Your task to perform on an android device: show emergency info Image 0: 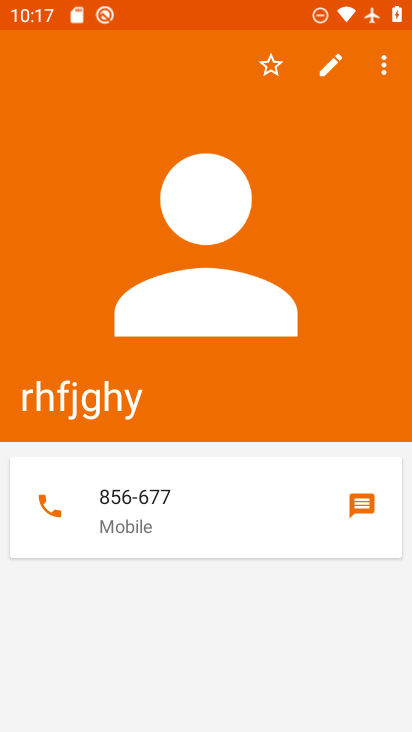
Step 0: press home button
Your task to perform on an android device: show emergency info Image 1: 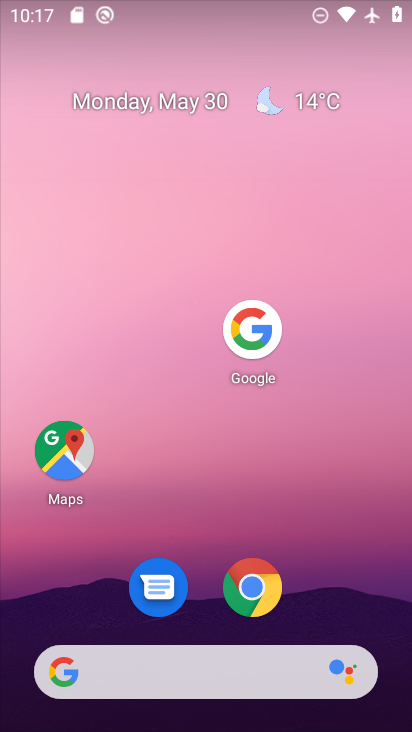
Step 1: drag from (196, 658) to (402, 136)
Your task to perform on an android device: show emergency info Image 2: 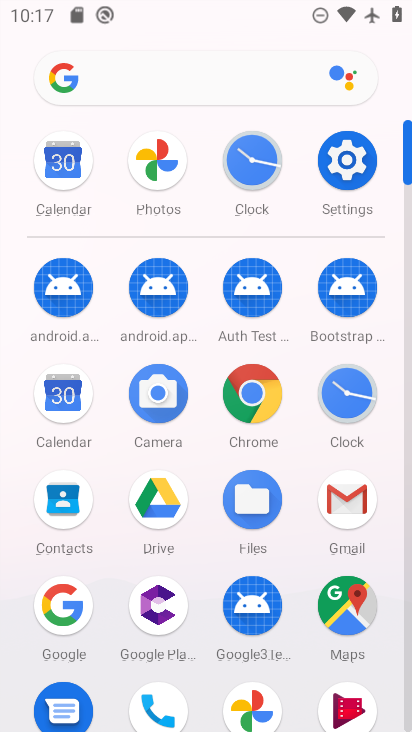
Step 2: click (356, 169)
Your task to perform on an android device: show emergency info Image 3: 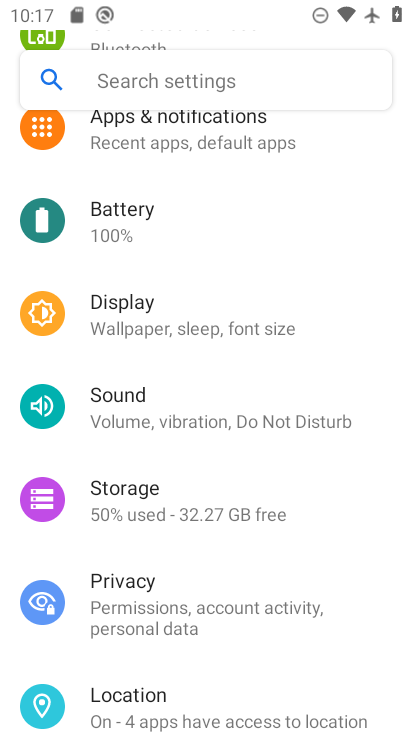
Step 3: drag from (262, 388) to (411, 328)
Your task to perform on an android device: show emergency info Image 4: 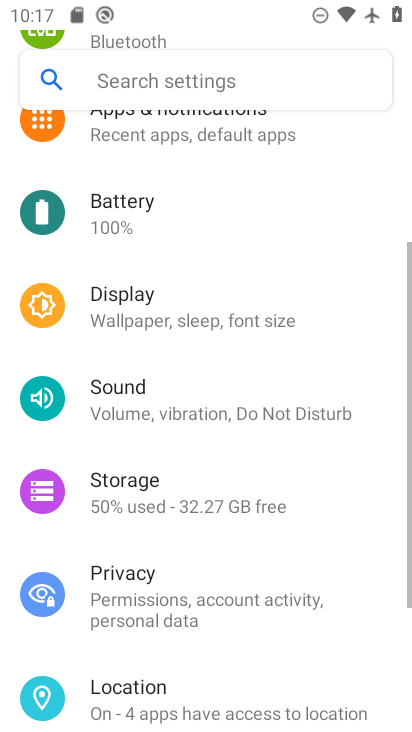
Step 4: drag from (274, 622) to (411, 412)
Your task to perform on an android device: show emergency info Image 5: 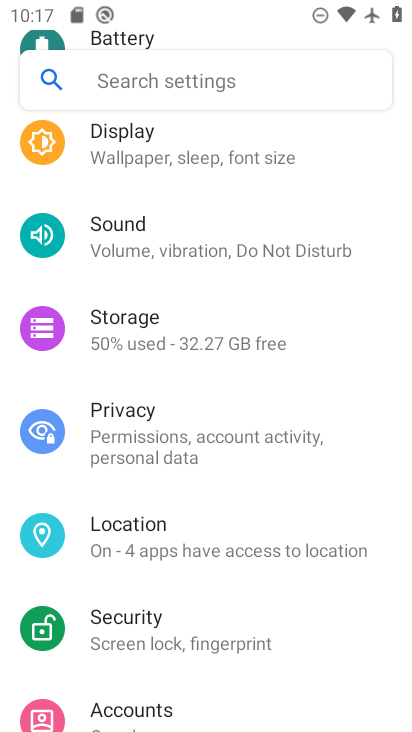
Step 5: drag from (267, 680) to (399, 59)
Your task to perform on an android device: show emergency info Image 6: 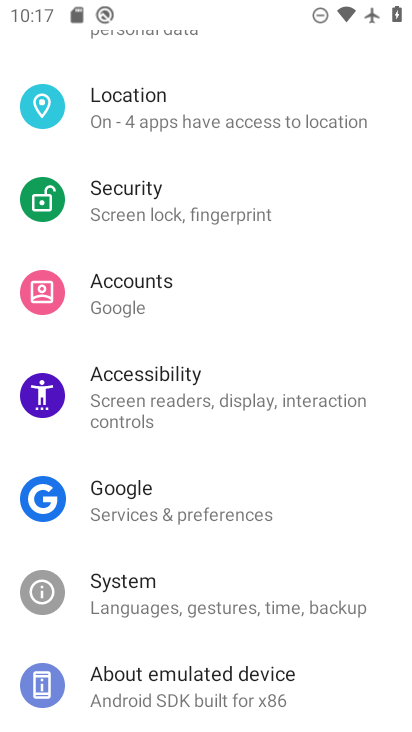
Step 6: click (173, 687)
Your task to perform on an android device: show emergency info Image 7: 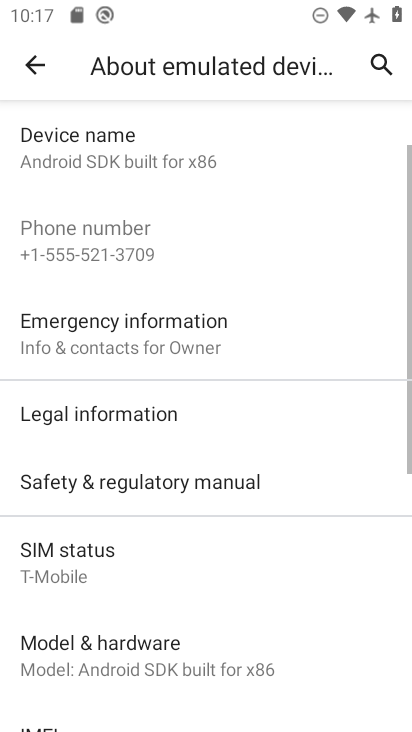
Step 7: click (147, 327)
Your task to perform on an android device: show emergency info Image 8: 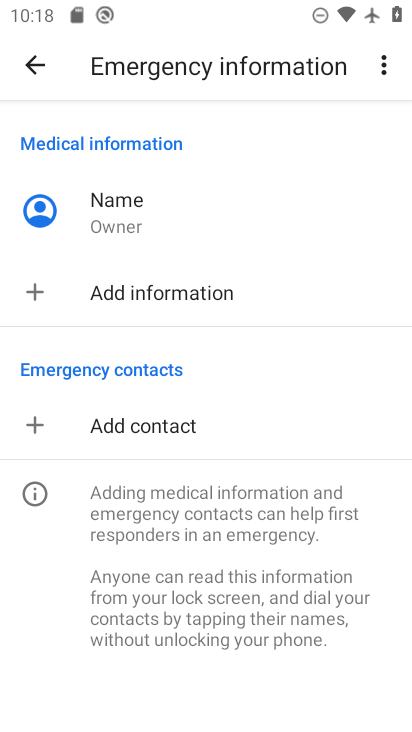
Step 8: task complete